Your task to perform on an android device: Show me popular games on the Play Store Image 0: 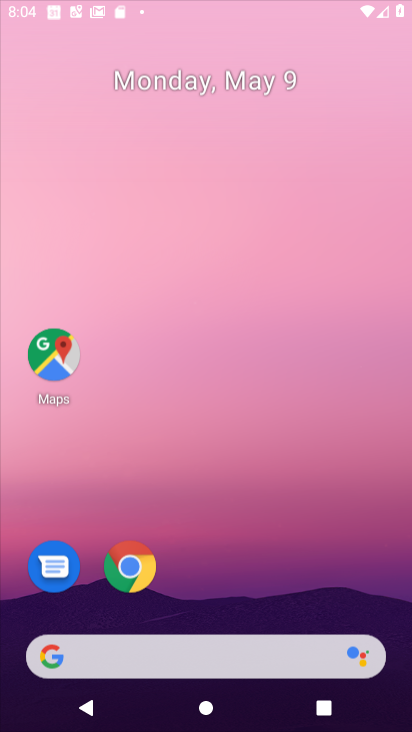
Step 0: click (358, 134)
Your task to perform on an android device: Show me popular games on the Play Store Image 1: 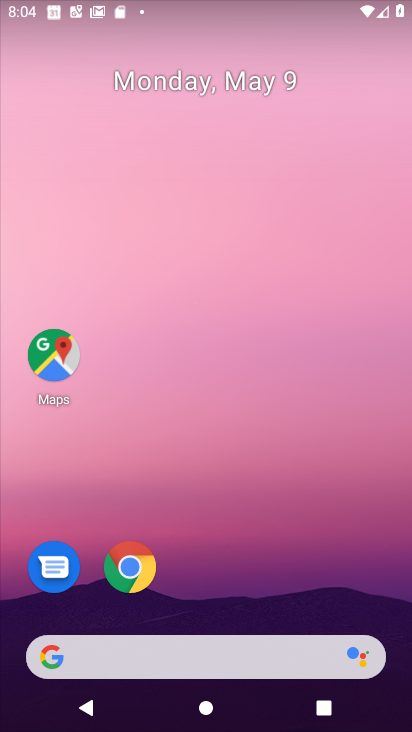
Step 1: drag from (212, 610) to (250, 232)
Your task to perform on an android device: Show me popular games on the Play Store Image 2: 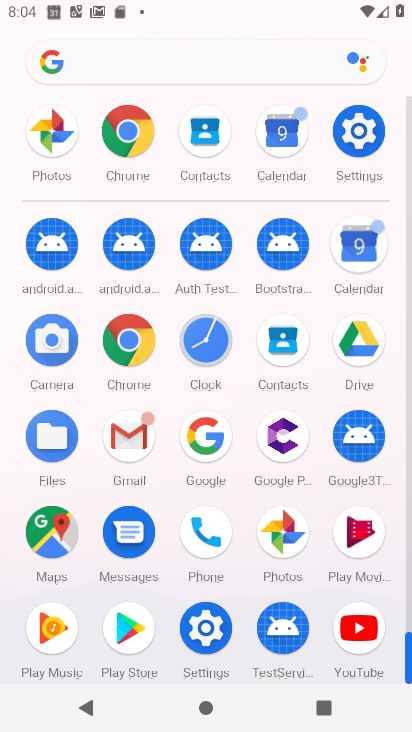
Step 2: click (123, 631)
Your task to perform on an android device: Show me popular games on the Play Store Image 3: 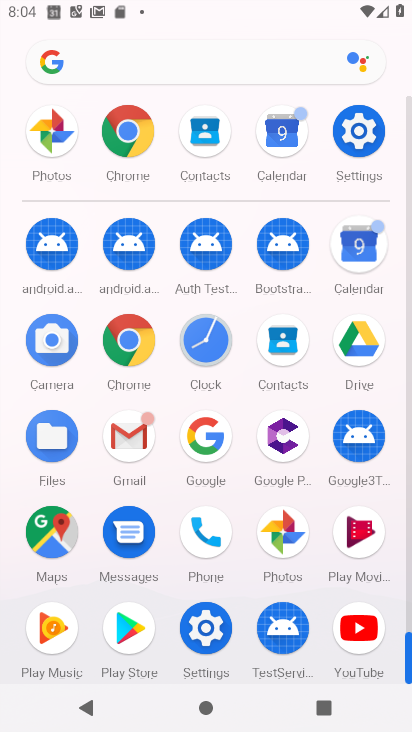
Step 3: click (122, 631)
Your task to perform on an android device: Show me popular games on the Play Store Image 4: 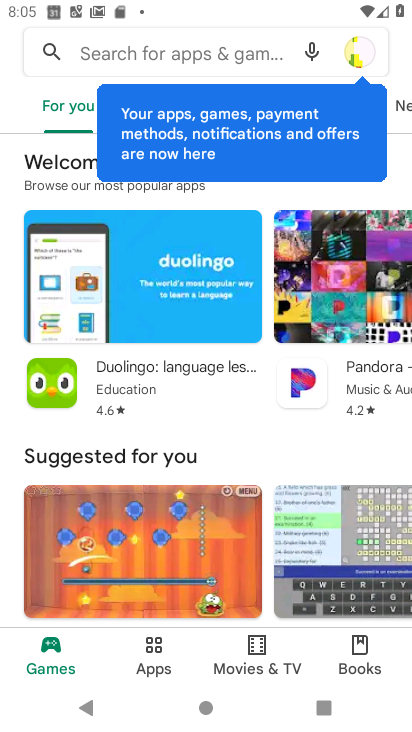
Step 4: drag from (237, 436) to (214, 660)
Your task to perform on an android device: Show me popular games on the Play Store Image 5: 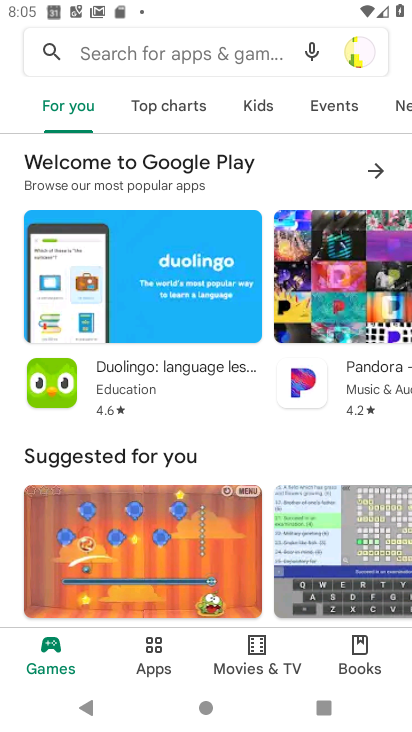
Step 5: drag from (231, 553) to (326, 259)
Your task to perform on an android device: Show me popular games on the Play Store Image 6: 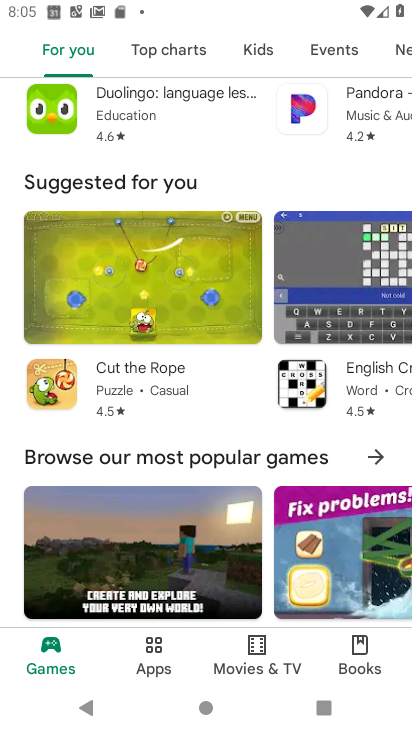
Step 6: drag from (208, 549) to (239, 398)
Your task to perform on an android device: Show me popular games on the Play Store Image 7: 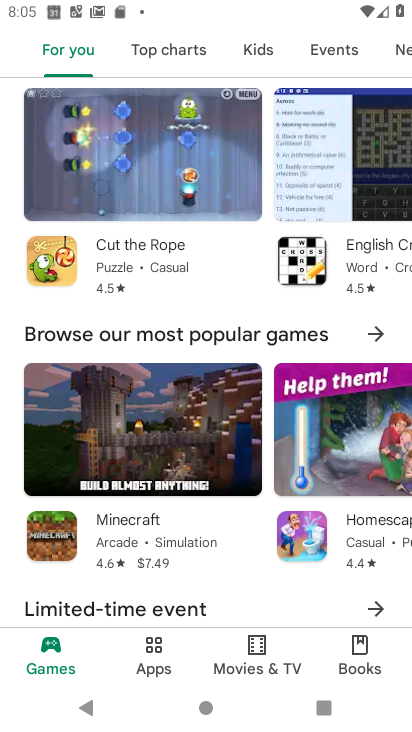
Step 7: click (375, 337)
Your task to perform on an android device: Show me popular games on the Play Store Image 8: 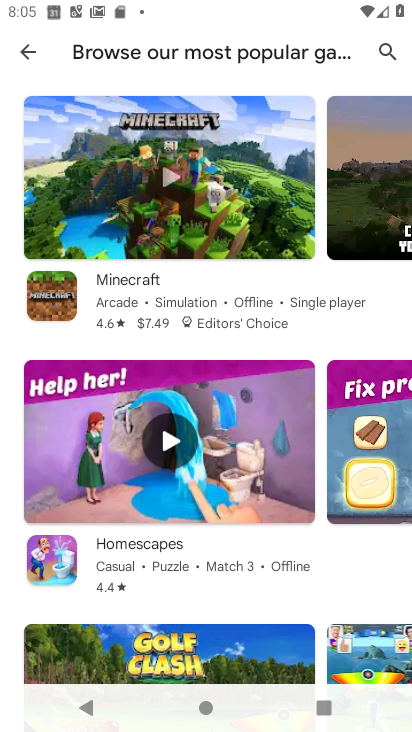
Step 8: task complete